Your task to perform on an android device: toggle pop-ups in chrome Image 0: 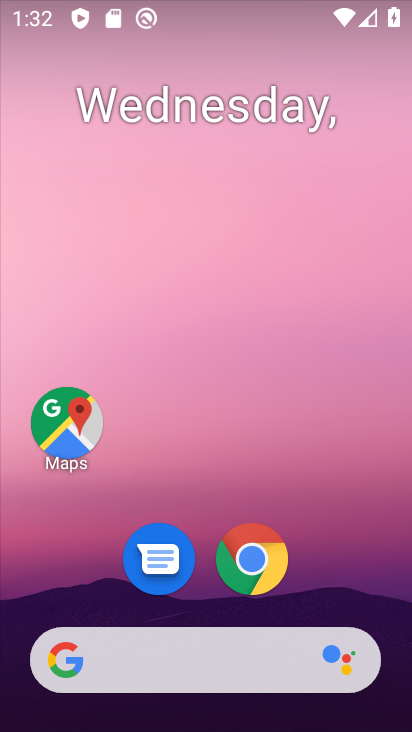
Step 0: click (258, 552)
Your task to perform on an android device: toggle pop-ups in chrome Image 1: 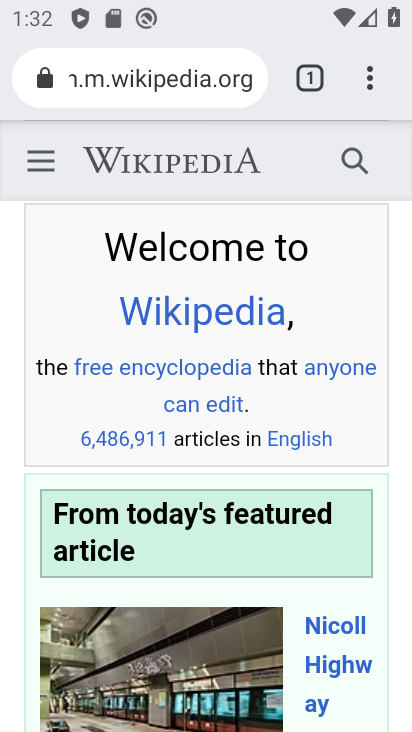
Step 1: click (367, 80)
Your task to perform on an android device: toggle pop-ups in chrome Image 2: 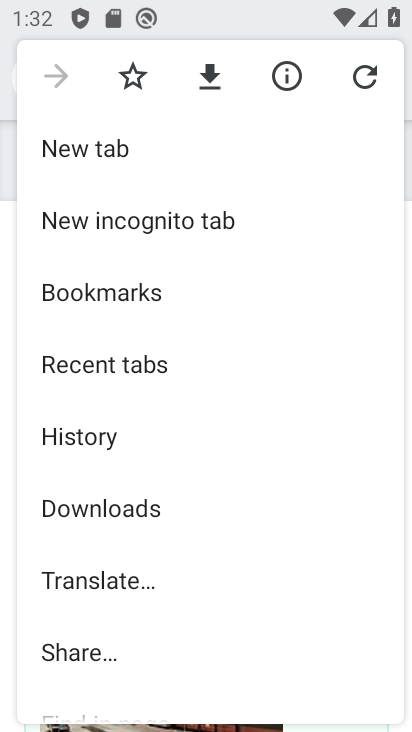
Step 2: drag from (187, 628) to (252, 137)
Your task to perform on an android device: toggle pop-ups in chrome Image 3: 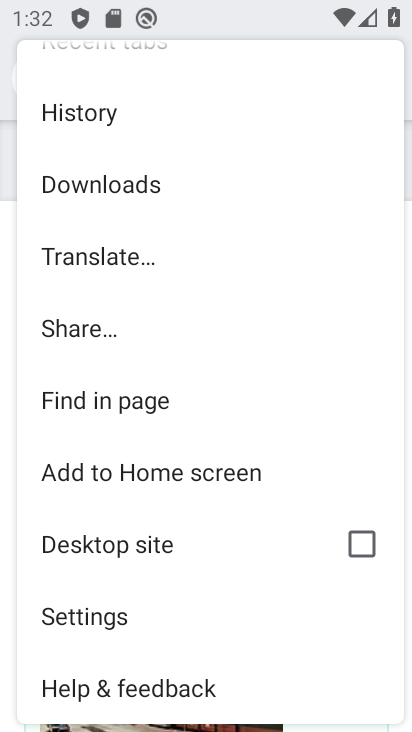
Step 3: click (133, 617)
Your task to perform on an android device: toggle pop-ups in chrome Image 4: 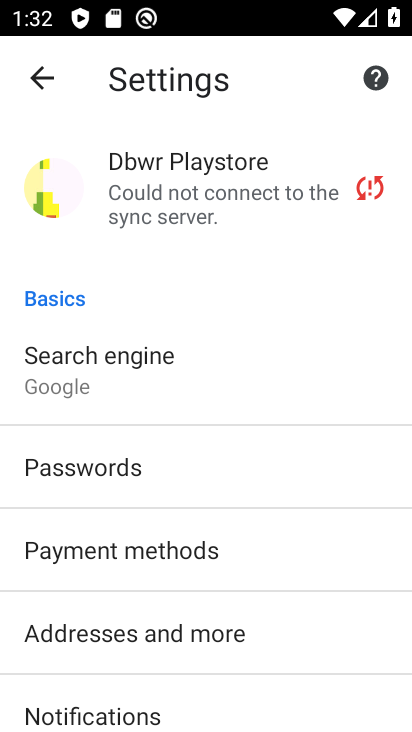
Step 4: drag from (149, 544) to (214, 168)
Your task to perform on an android device: toggle pop-ups in chrome Image 5: 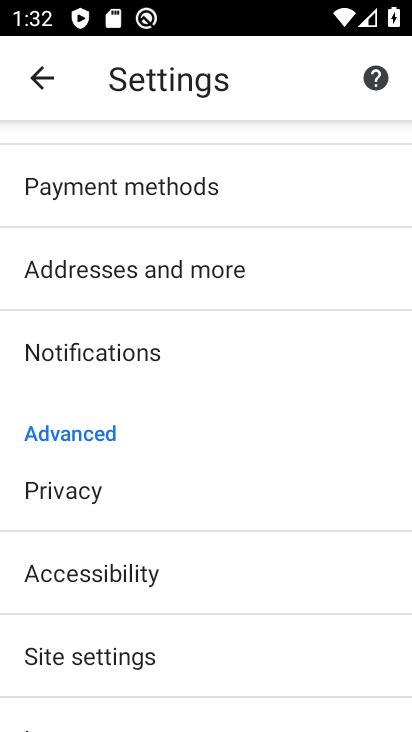
Step 5: click (144, 644)
Your task to perform on an android device: toggle pop-ups in chrome Image 6: 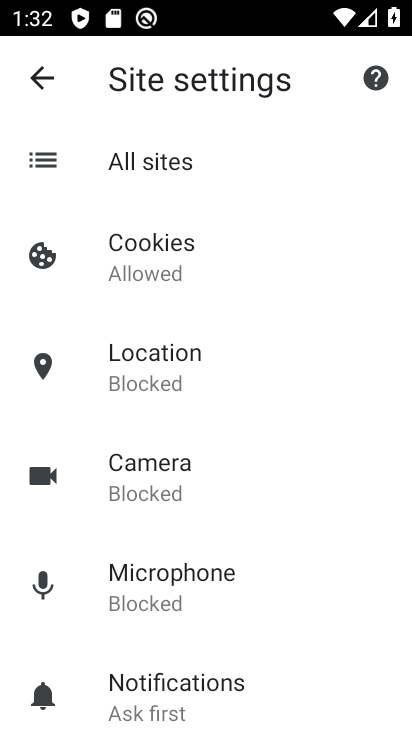
Step 6: drag from (210, 605) to (259, 194)
Your task to perform on an android device: toggle pop-ups in chrome Image 7: 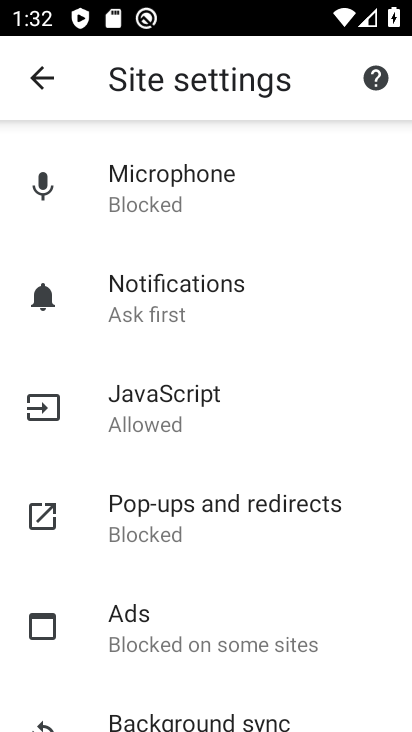
Step 7: click (191, 538)
Your task to perform on an android device: toggle pop-ups in chrome Image 8: 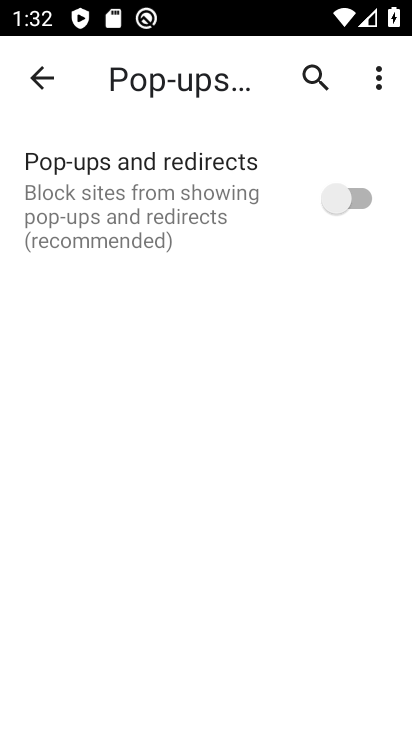
Step 8: click (366, 197)
Your task to perform on an android device: toggle pop-ups in chrome Image 9: 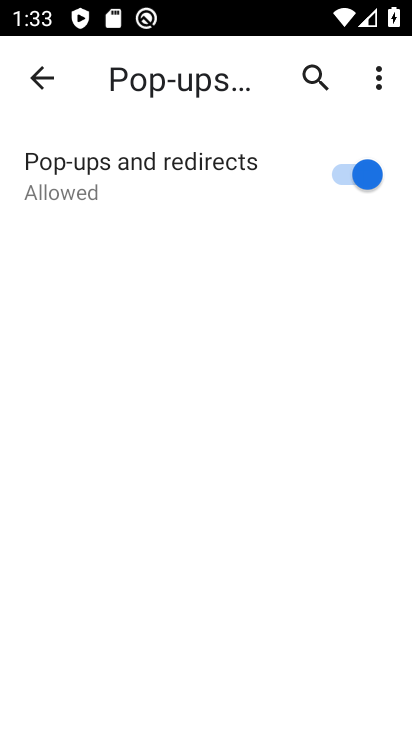
Step 9: task complete